Your task to perform on an android device: Go to privacy settings Image 0: 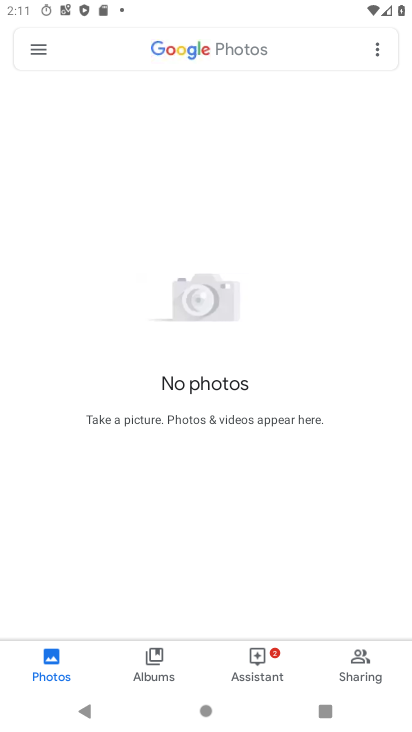
Step 0: press home button
Your task to perform on an android device: Go to privacy settings Image 1: 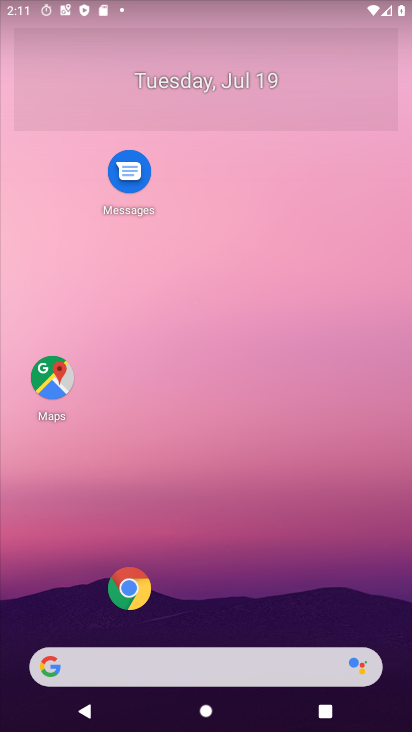
Step 1: drag from (94, 566) to (403, 215)
Your task to perform on an android device: Go to privacy settings Image 2: 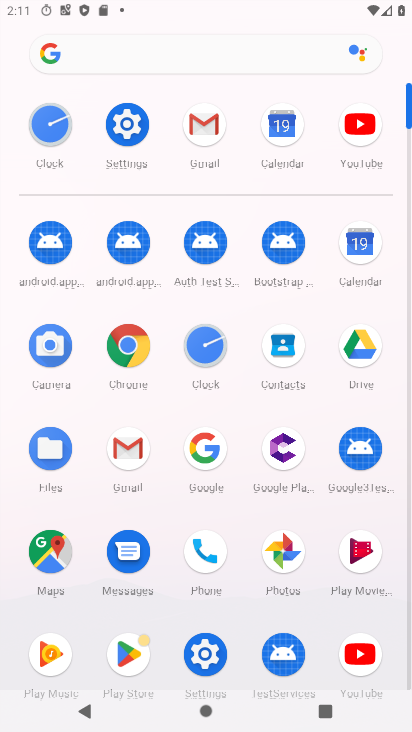
Step 2: click (222, 664)
Your task to perform on an android device: Go to privacy settings Image 3: 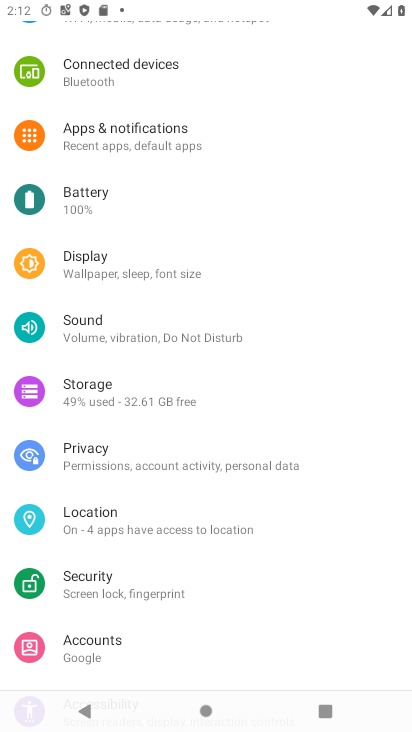
Step 3: click (132, 442)
Your task to perform on an android device: Go to privacy settings Image 4: 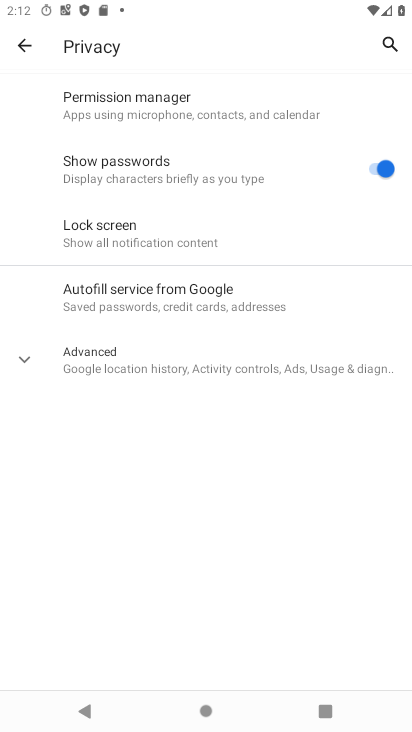
Step 4: task complete